Your task to perform on an android device: move a message to another label in the gmail app Image 0: 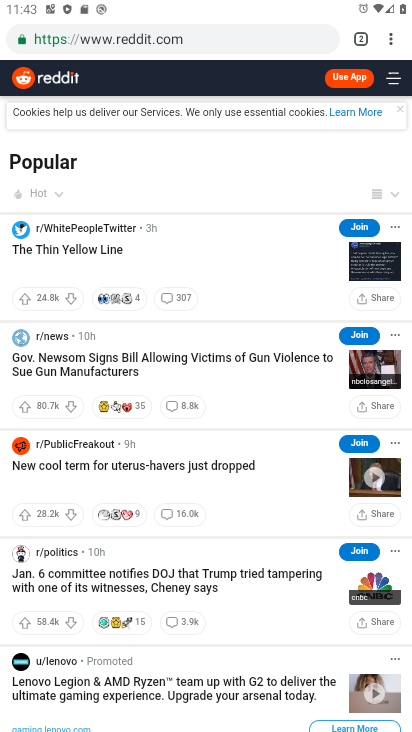
Step 0: press home button
Your task to perform on an android device: move a message to another label in the gmail app Image 1: 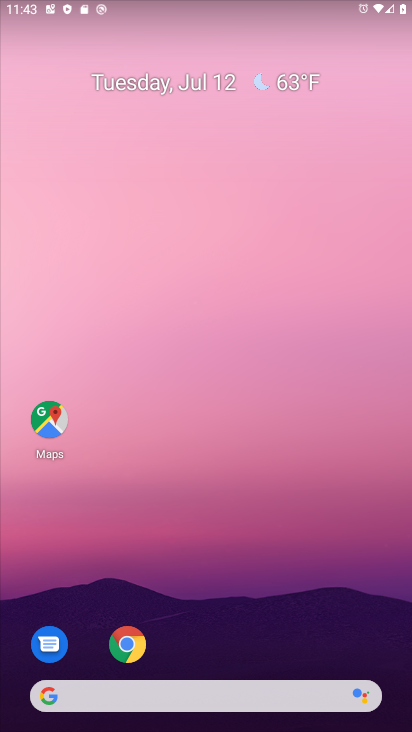
Step 1: drag from (226, 699) to (285, 17)
Your task to perform on an android device: move a message to another label in the gmail app Image 2: 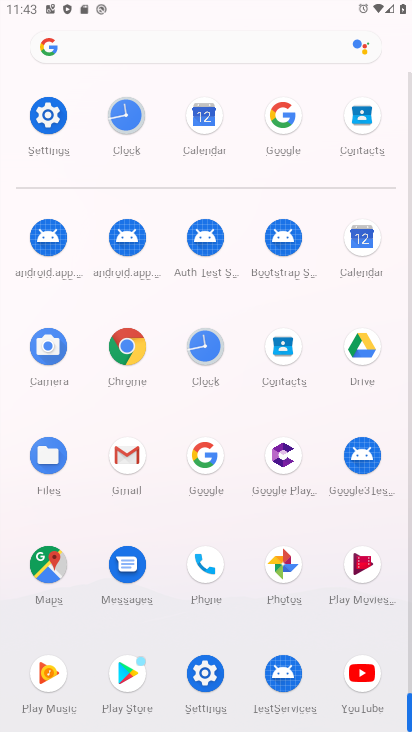
Step 2: click (125, 454)
Your task to perform on an android device: move a message to another label in the gmail app Image 3: 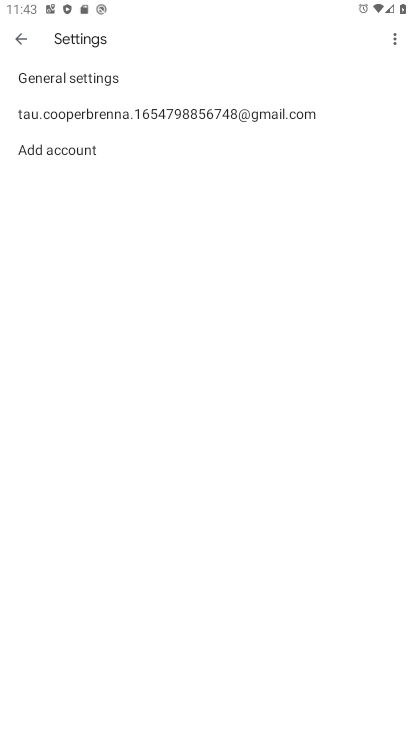
Step 3: press back button
Your task to perform on an android device: move a message to another label in the gmail app Image 4: 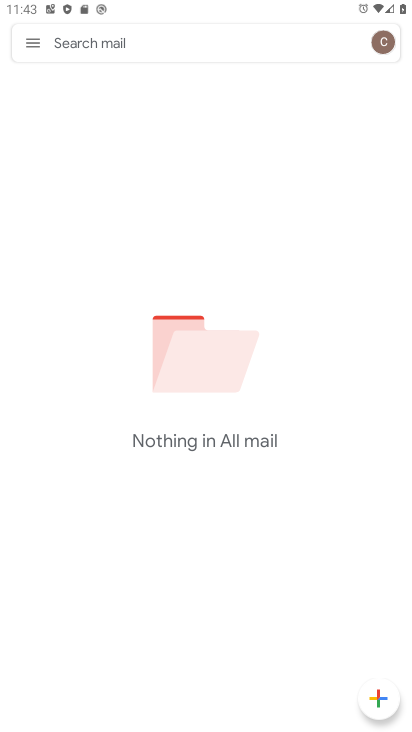
Step 4: click (30, 50)
Your task to perform on an android device: move a message to another label in the gmail app Image 5: 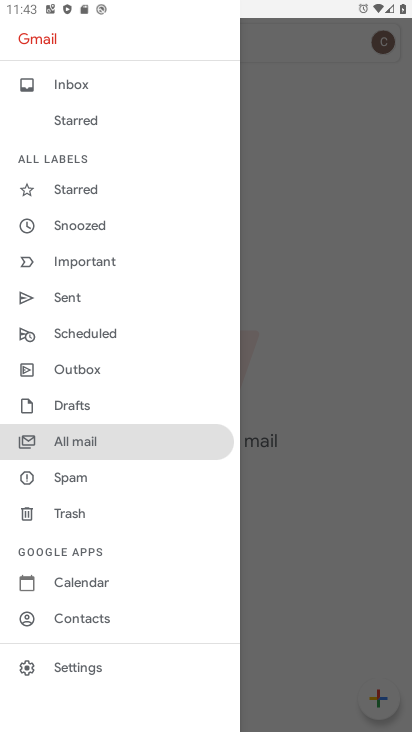
Step 5: click (60, 77)
Your task to perform on an android device: move a message to another label in the gmail app Image 6: 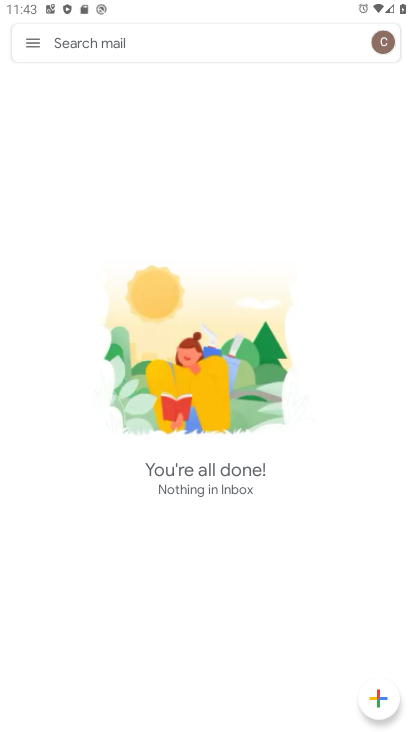
Step 6: click (33, 46)
Your task to perform on an android device: move a message to another label in the gmail app Image 7: 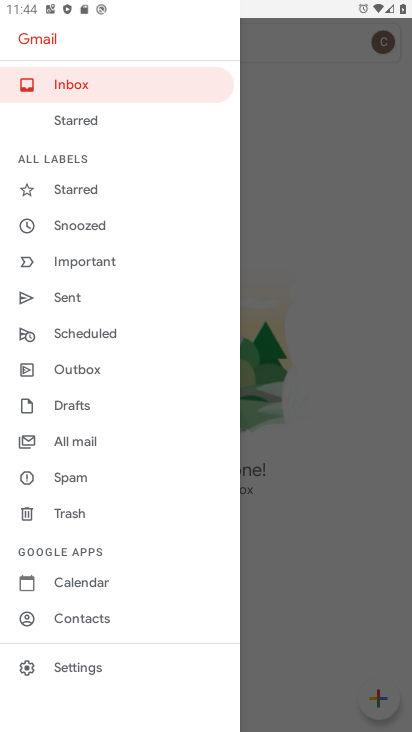
Step 7: click (78, 177)
Your task to perform on an android device: move a message to another label in the gmail app Image 8: 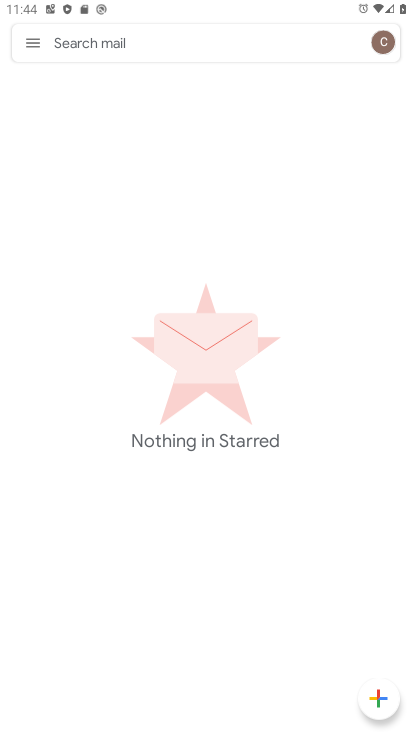
Step 8: click (32, 47)
Your task to perform on an android device: move a message to another label in the gmail app Image 9: 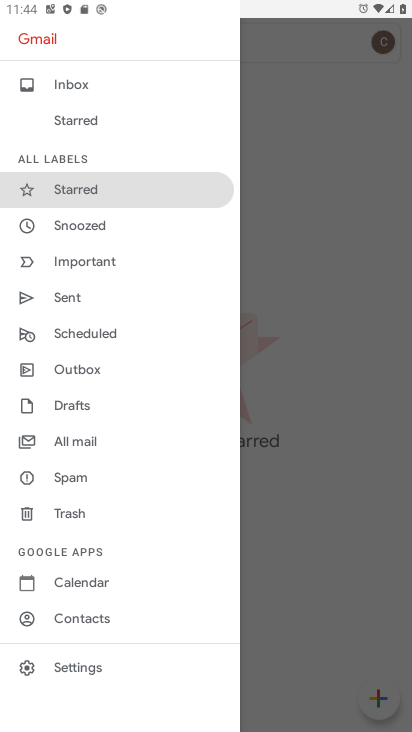
Step 9: click (78, 220)
Your task to perform on an android device: move a message to another label in the gmail app Image 10: 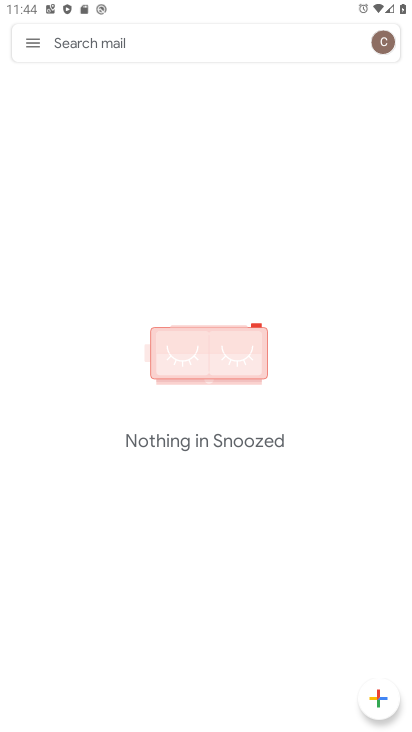
Step 10: click (34, 41)
Your task to perform on an android device: move a message to another label in the gmail app Image 11: 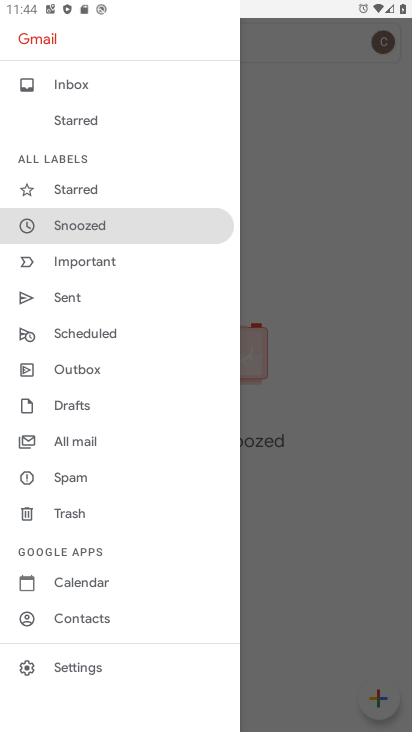
Step 11: click (55, 266)
Your task to perform on an android device: move a message to another label in the gmail app Image 12: 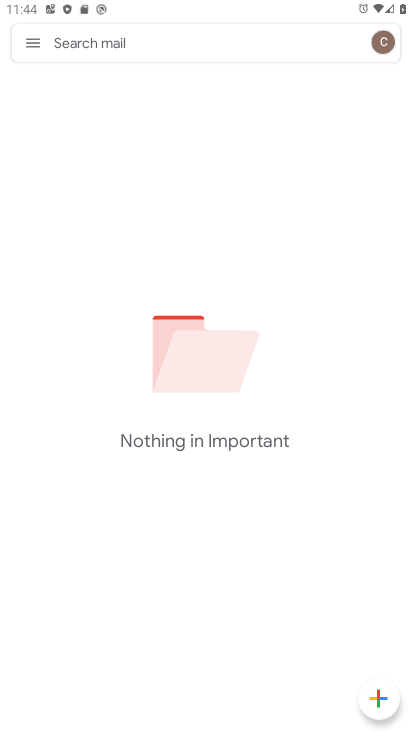
Step 12: click (28, 45)
Your task to perform on an android device: move a message to another label in the gmail app Image 13: 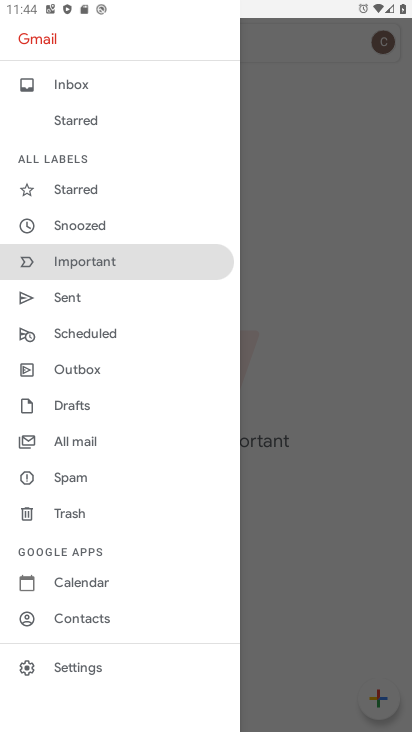
Step 13: click (79, 302)
Your task to perform on an android device: move a message to another label in the gmail app Image 14: 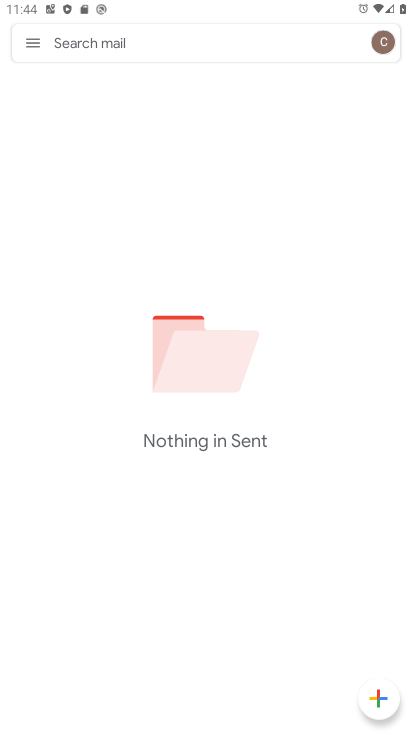
Step 14: click (36, 46)
Your task to perform on an android device: move a message to another label in the gmail app Image 15: 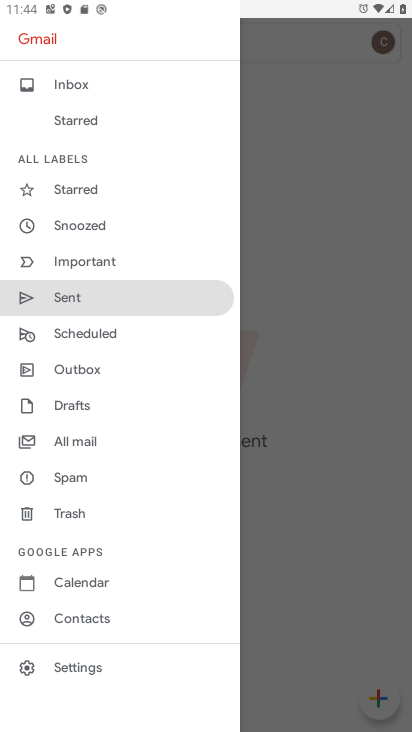
Step 15: click (87, 337)
Your task to perform on an android device: move a message to another label in the gmail app Image 16: 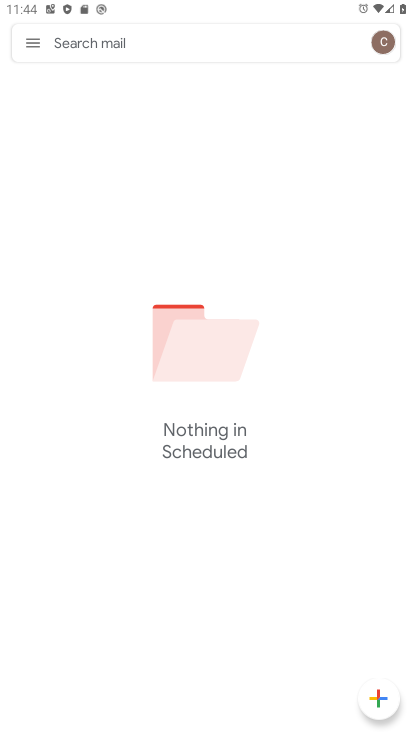
Step 16: click (37, 43)
Your task to perform on an android device: move a message to another label in the gmail app Image 17: 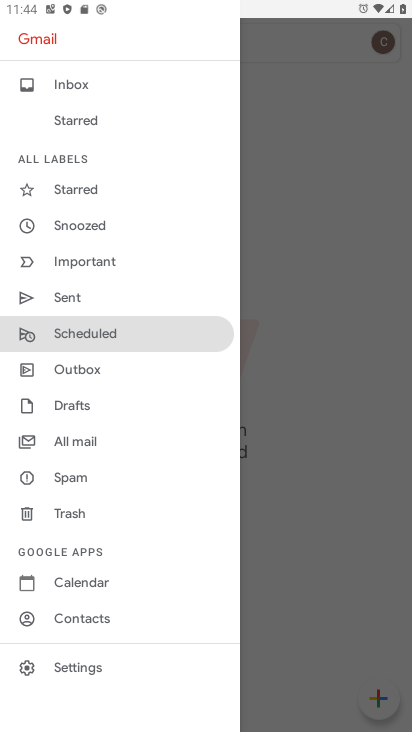
Step 17: click (69, 379)
Your task to perform on an android device: move a message to another label in the gmail app Image 18: 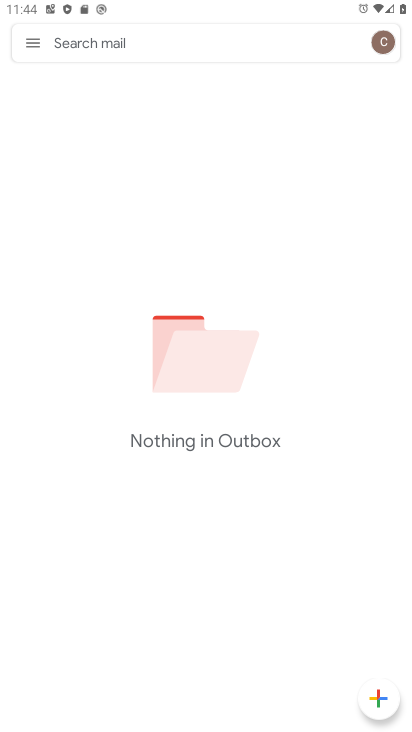
Step 18: click (39, 46)
Your task to perform on an android device: move a message to another label in the gmail app Image 19: 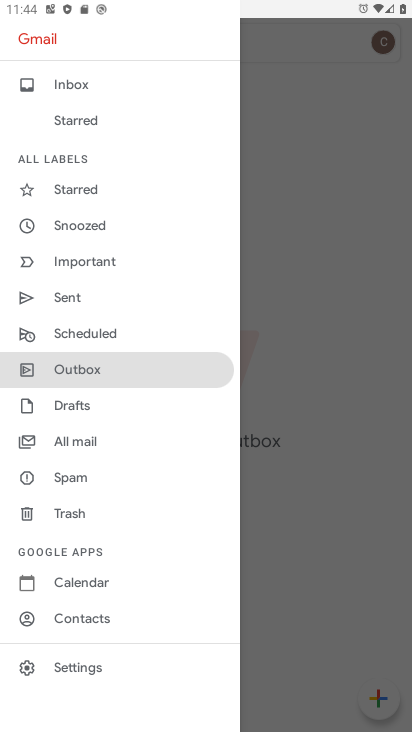
Step 19: click (76, 400)
Your task to perform on an android device: move a message to another label in the gmail app Image 20: 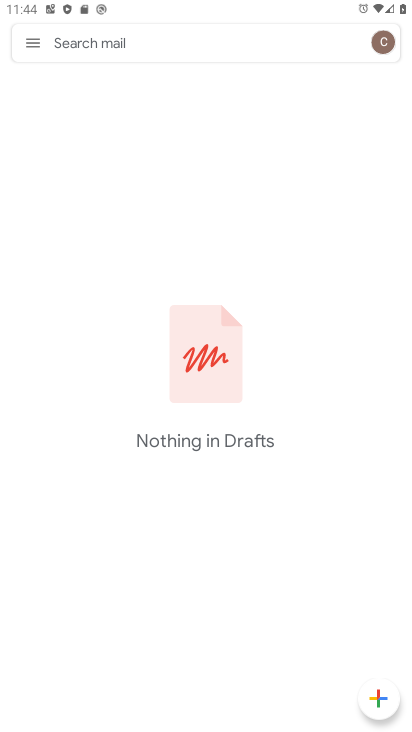
Step 20: task complete